Your task to perform on an android device: install app "Speedtest by Ookla" Image 0: 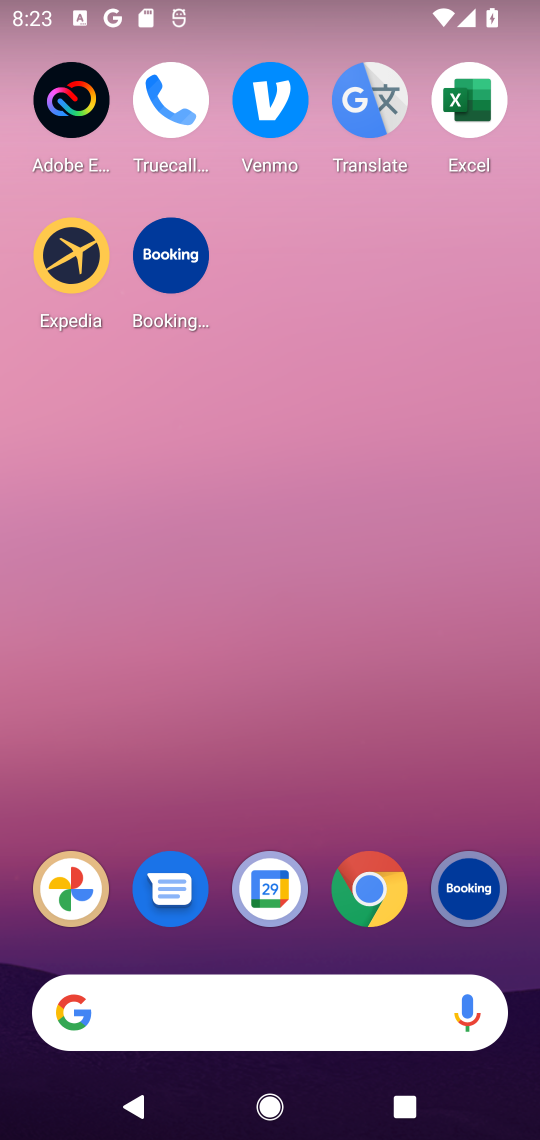
Step 0: press home button
Your task to perform on an android device: install app "Speedtest by Ookla" Image 1: 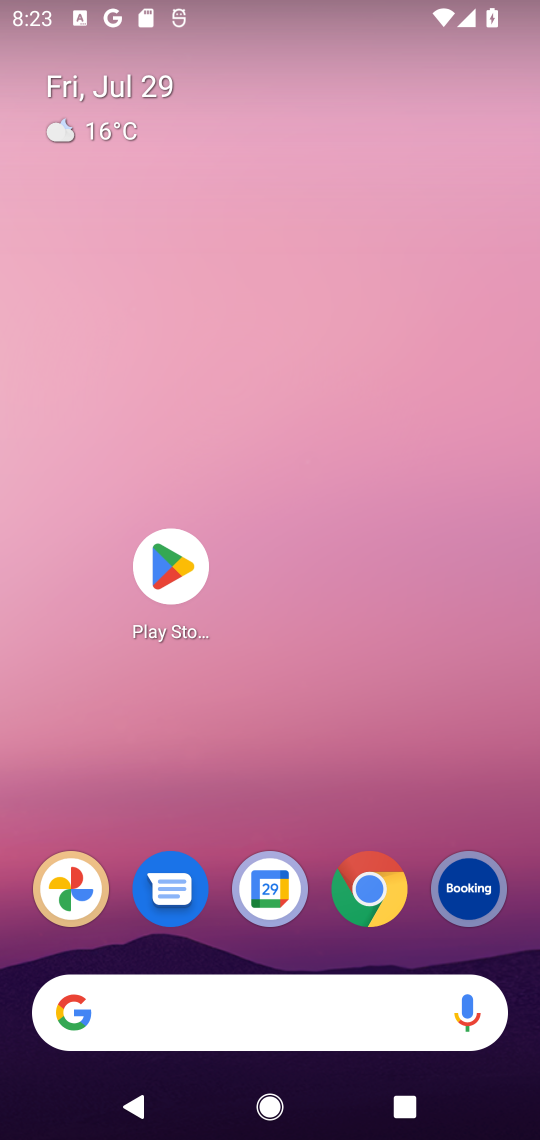
Step 1: click (156, 571)
Your task to perform on an android device: install app "Speedtest by Ookla" Image 2: 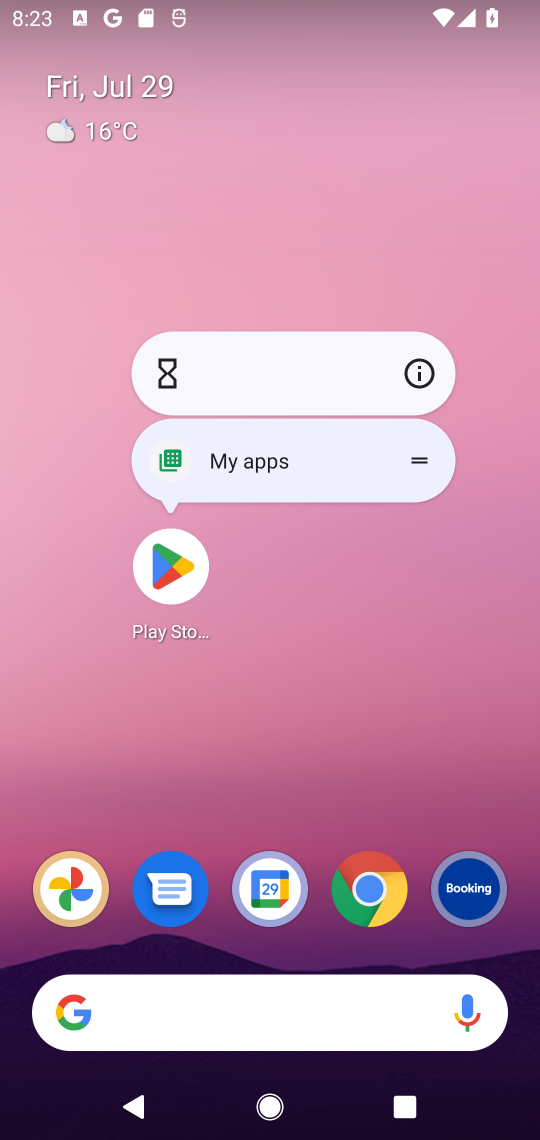
Step 2: click (174, 567)
Your task to perform on an android device: install app "Speedtest by Ookla" Image 3: 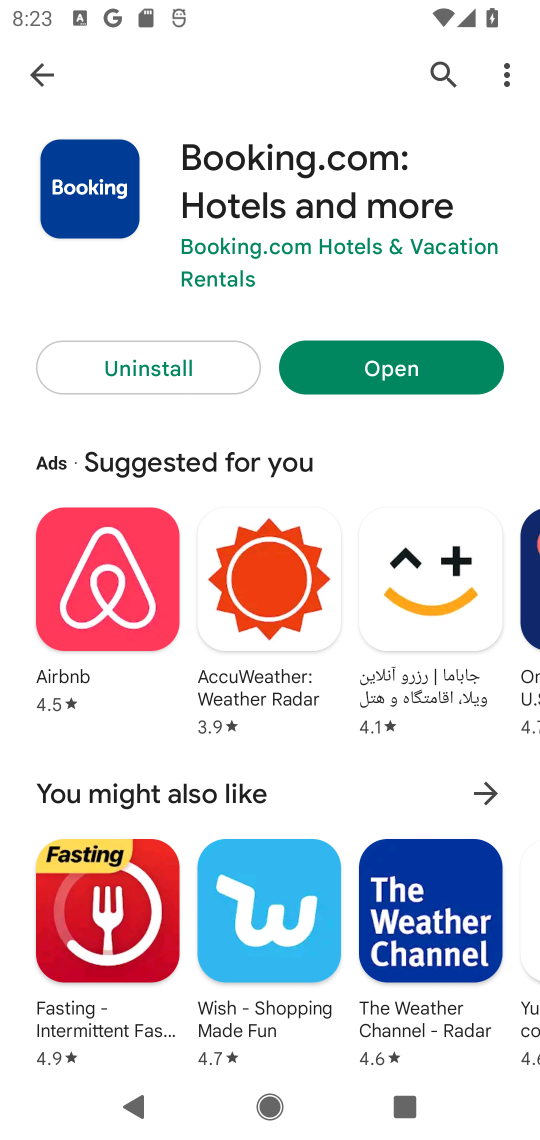
Step 3: click (439, 71)
Your task to perform on an android device: install app "Speedtest by Ookla" Image 4: 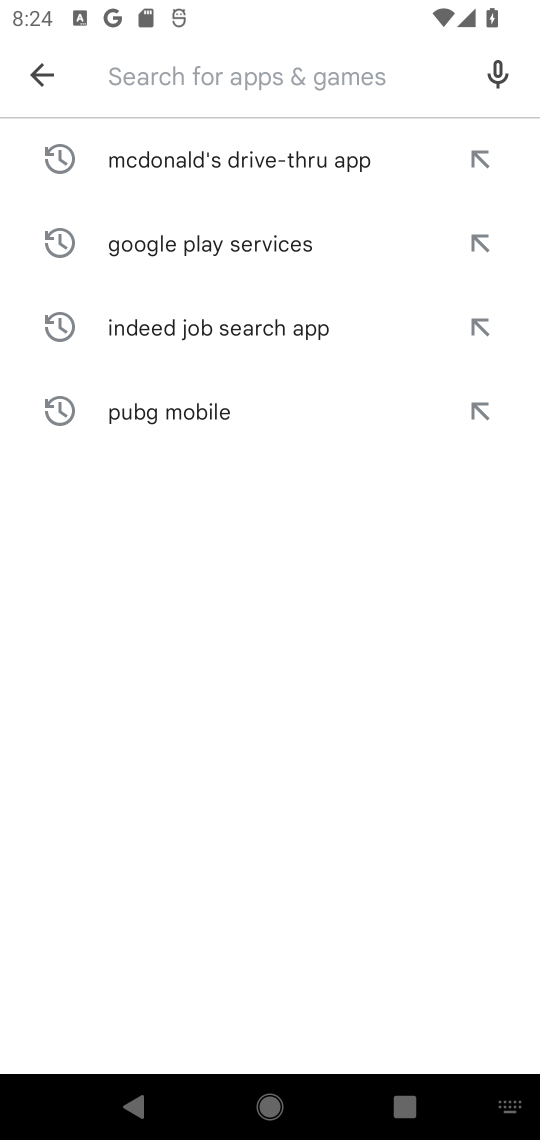
Step 4: type "Speedtest by Ookla"
Your task to perform on an android device: install app "Speedtest by Ookla" Image 5: 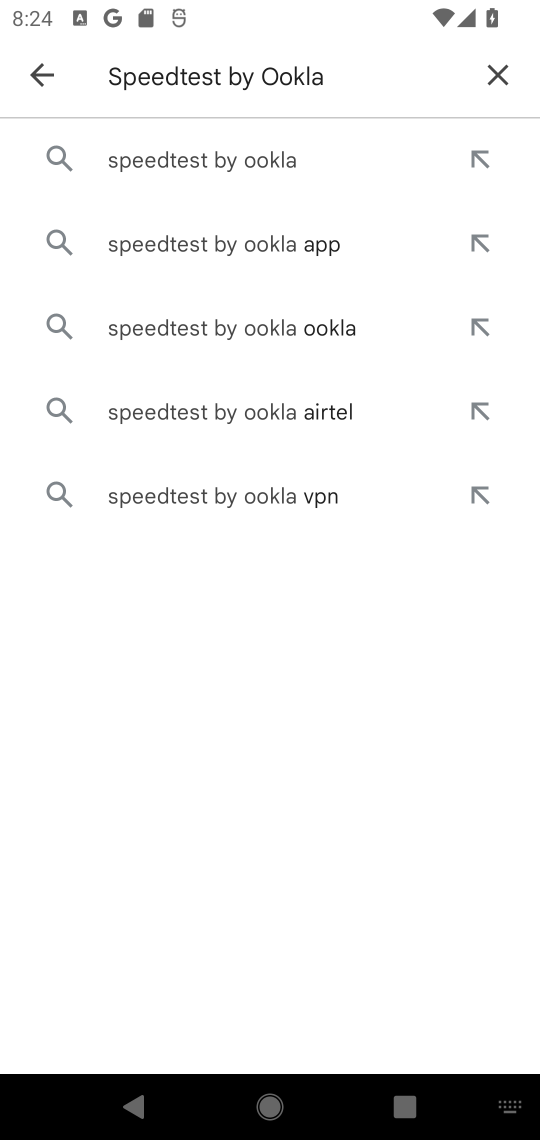
Step 5: click (244, 163)
Your task to perform on an android device: install app "Speedtest by Ookla" Image 6: 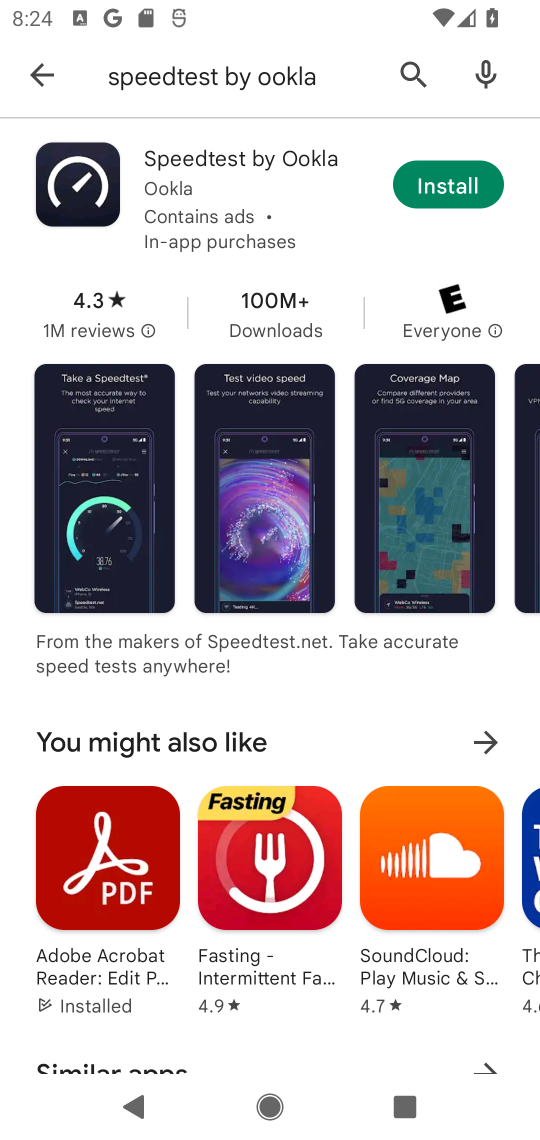
Step 6: click (452, 186)
Your task to perform on an android device: install app "Speedtest by Ookla" Image 7: 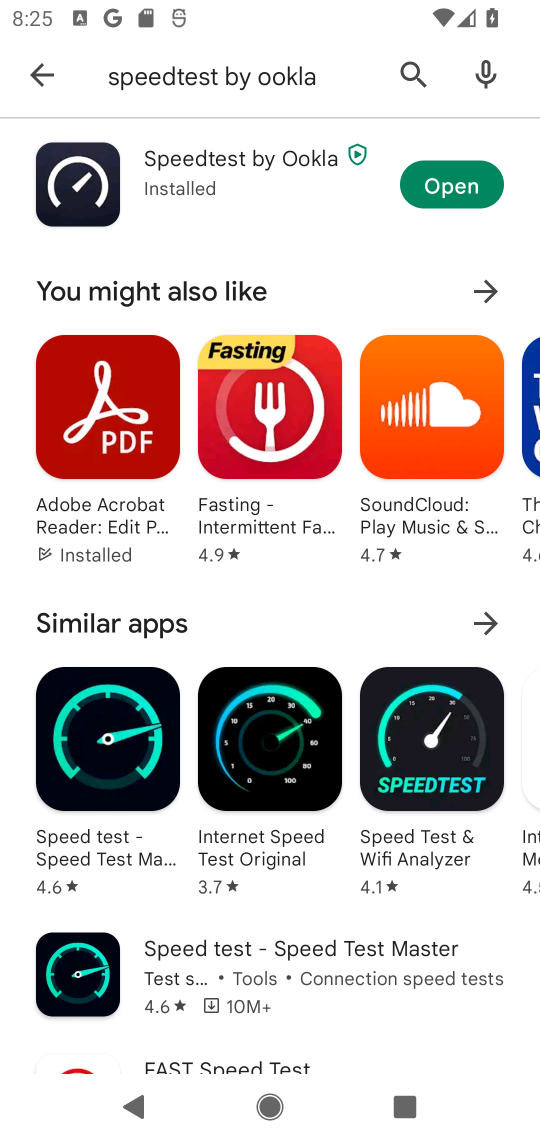
Step 7: task complete